Your task to perform on an android device: Open calendar and show me the second week of next month Image 0: 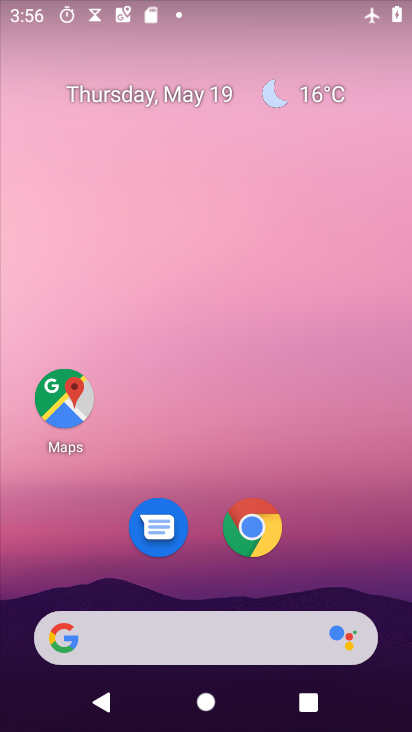
Step 0: drag from (336, 517) to (228, 70)
Your task to perform on an android device: Open calendar and show me the second week of next month Image 1: 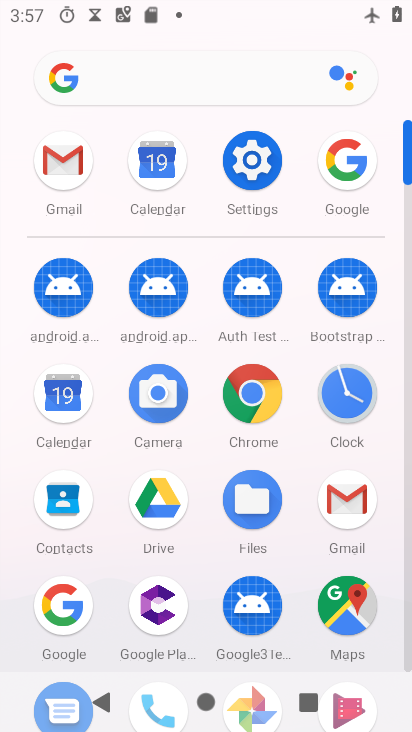
Step 1: click (152, 170)
Your task to perform on an android device: Open calendar and show me the second week of next month Image 2: 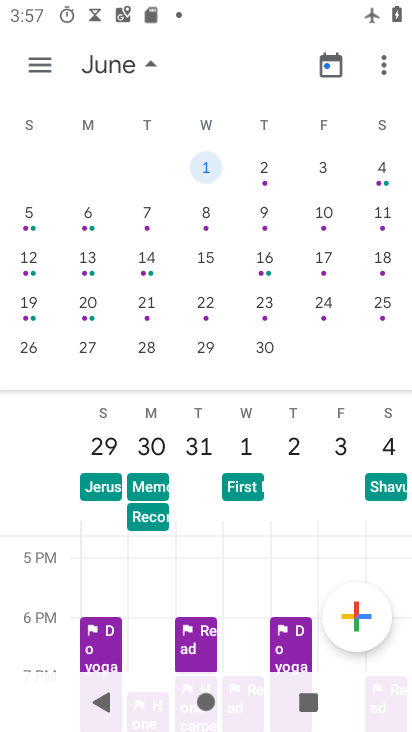
Step 2: drag from (298, 290) to (357, 306)
Your task to perform on an android device: Open calendar and show me the second week of next month Image 3: 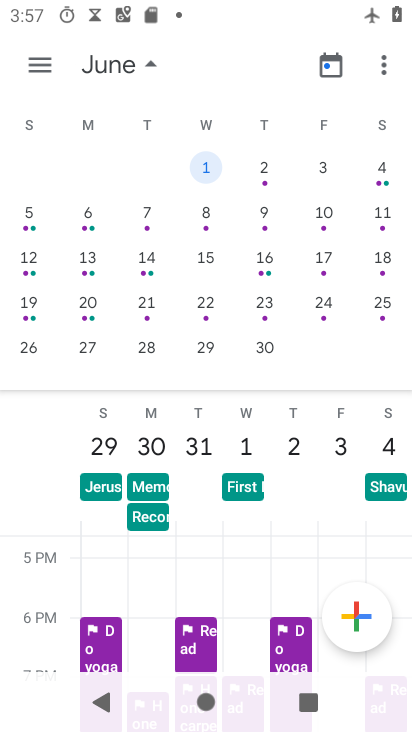
Step 3: click (30, 219)
Your task to perform on an android device: Open calendar and show me the second week of next month Image 4: 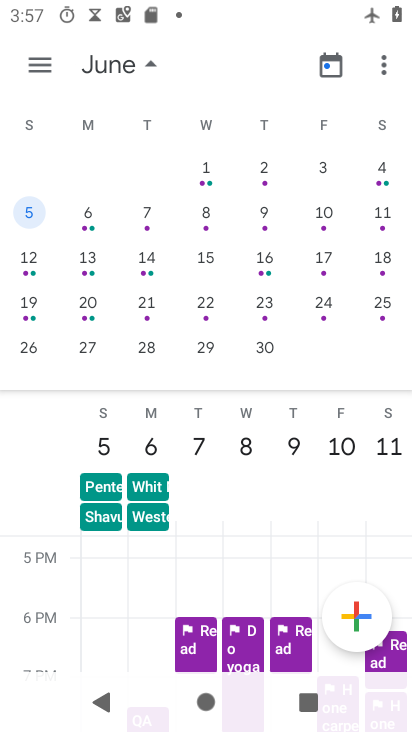
Step 4: task complete